Your task to perform on an android device: Show me popular games on the Play Store Image 0: 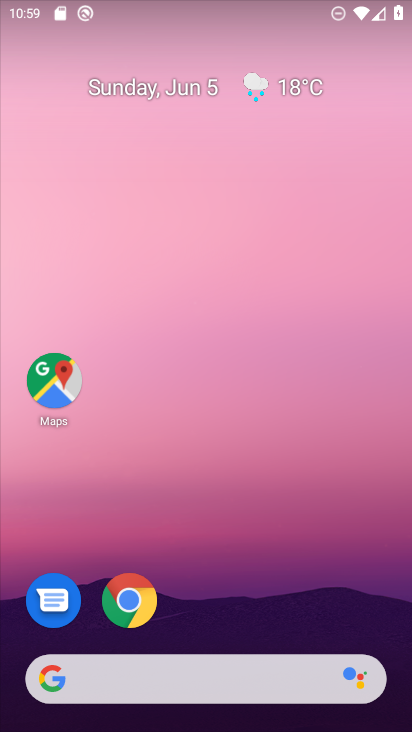
Step 0: drag from (259, 572) to (358, 1)
Your task to perform on an android device: Show me popular games on the Play Store Image 1: 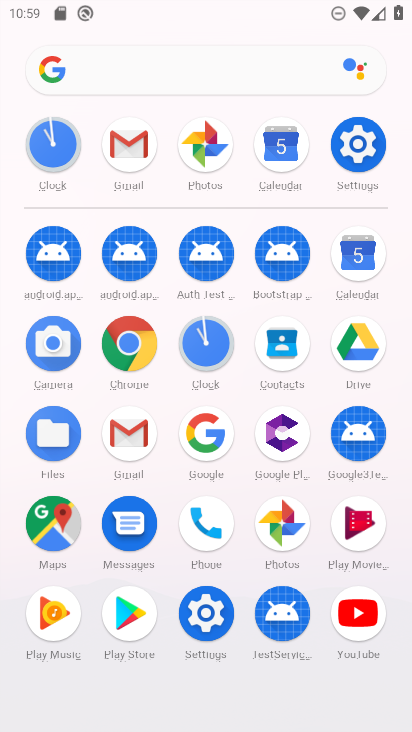
Step 1: click (124, 605)
Your task to perform on an android device: Show me popular games on the Play Store Image 2: 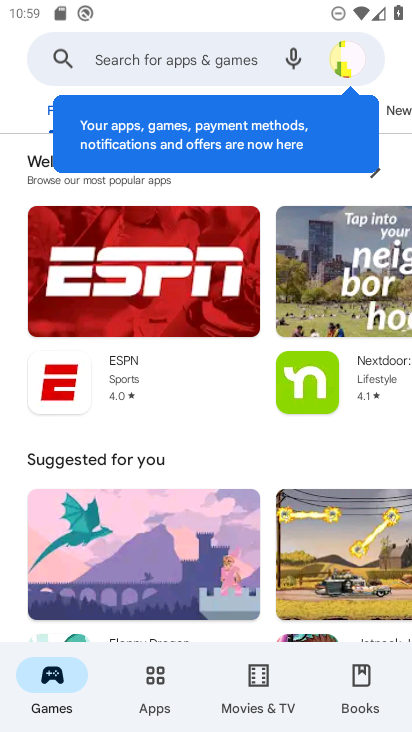
Step 2: drag from (164, 612) to (263, 109)
Your task to perform on an android device: Show me popular games on the Play Store Image 3: 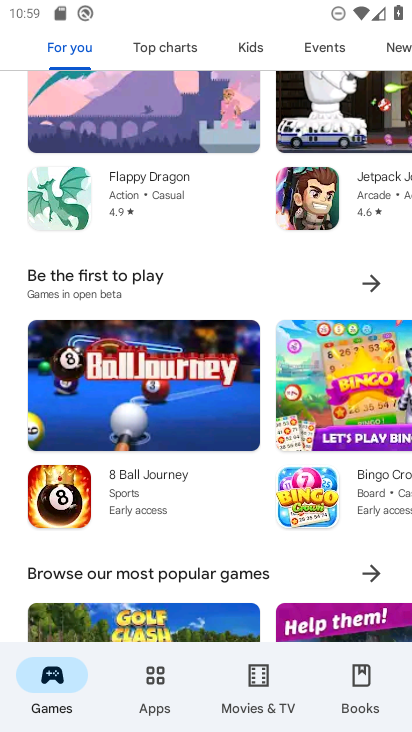
Step 3: click (355, 562)
Your task to perform on an android device: Show me popular games on the Play Store Image 4: 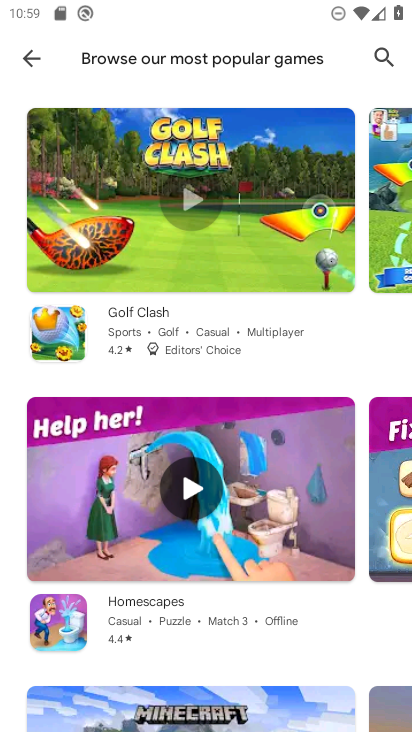
Step 4: task complete